Your task to perform on an android device: toggle improve location accuracy Image 0: 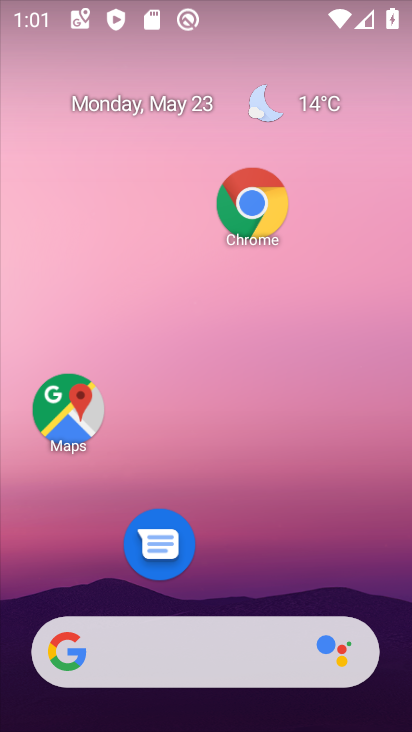
Step 0: drag from (270, 627) to (221, 217)
Your task to perform on an android device: toggle improve location accuracy Image 1: 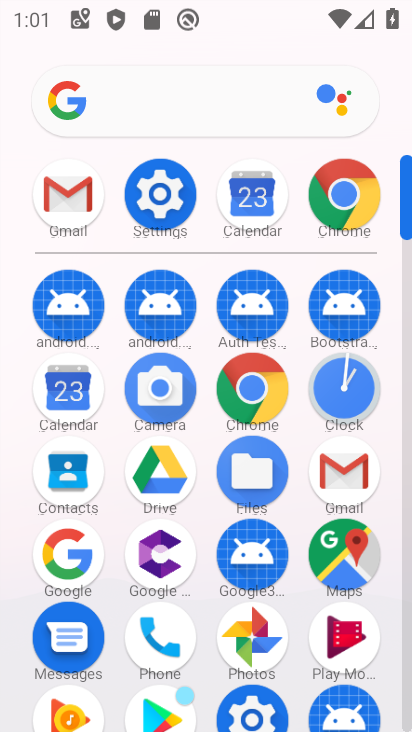
Step 1: click (164, 191)
Your task to perform on an android device: toggle improve location accuracy Image 2: 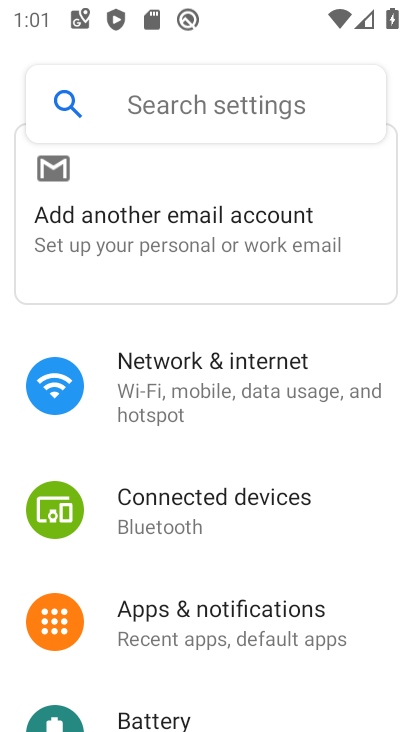
Step 2: drag from (192, 559) to (197, 259)
Your task to perform on an android device: toggle improve location accuracy Image 3: 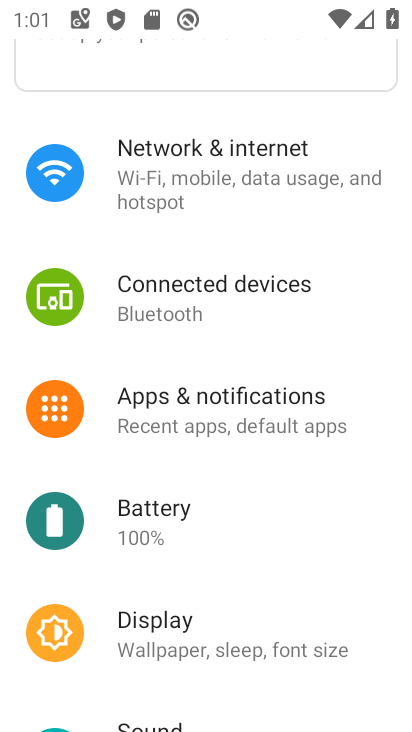
Step 3: drag from (212, 610) to (268, 241)
Your task to perform on an android device: toggle improve location accuracy Image 4: 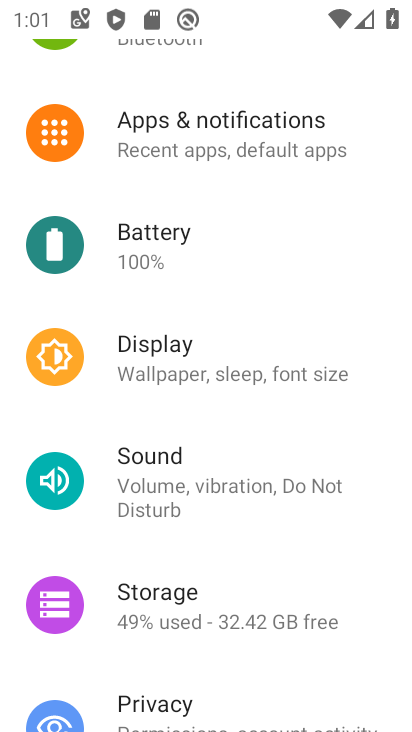
Step 4: drag from (256, 572) to (273, 207)
Your task to perform on an android device: toggle improve location accuracy Image 5: 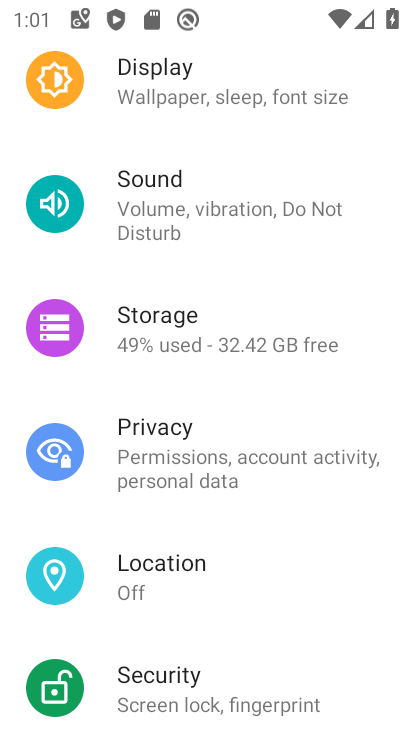
Step 5: click (183, 571)
Your task to perform on an android device: toggle improve location accuracy Image 6: 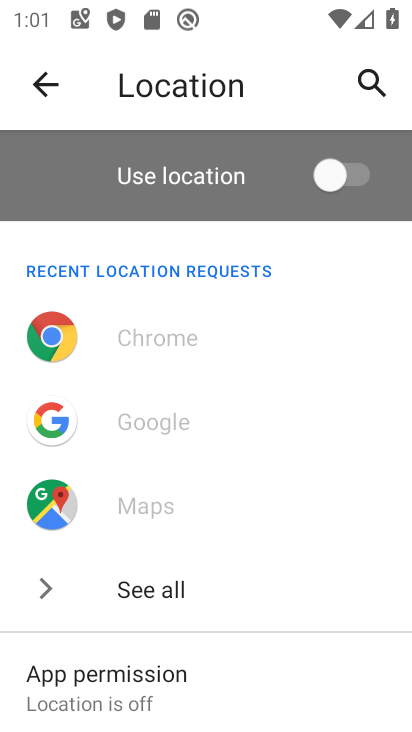
Step 6: drag from (294, 596) to (273, 3)
Your task to perform on an android device: toggle improve location accuracy Image 7: 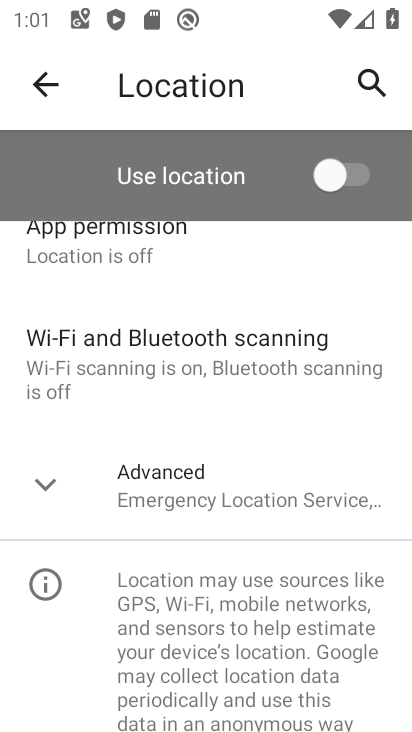
Step 7: click (189, 498)
Your task to perform on an android device: toggle improve location accuracy Image 8: 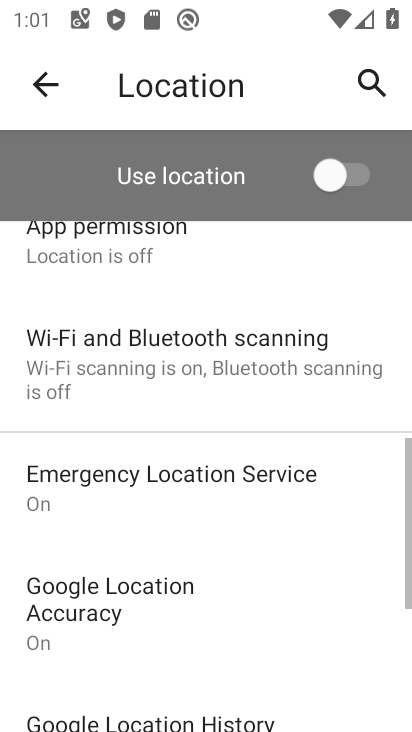
Step 8: drag from (253, 551) to (271, 48)
Your task to perform on an android device: toggle improve location accuracy Image 9: 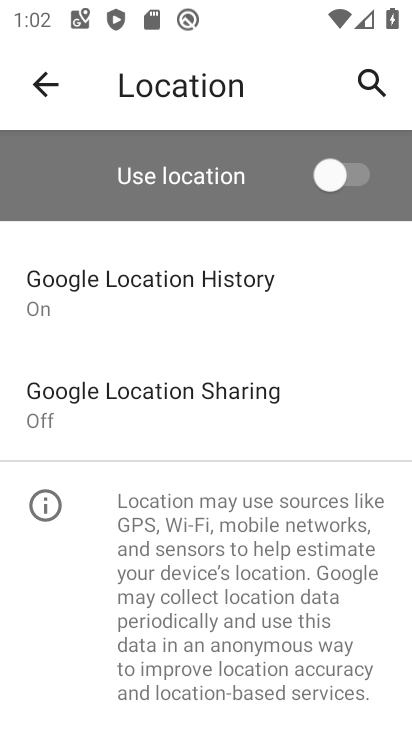
Step 9: drag from (254, 636) to (234, 110)
Your task to perform on an android device: toggle improve location accuracy Image 10: 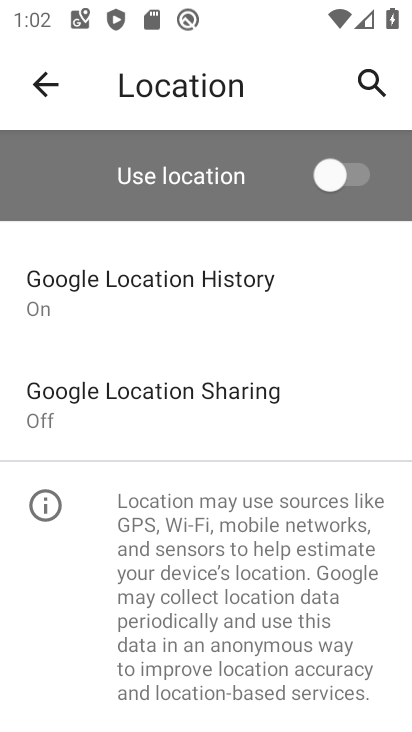
Step 10: drag from (203, 313) to (234, 623)
Your task to perform on an android device: toggle improve location accuracy Image 11: 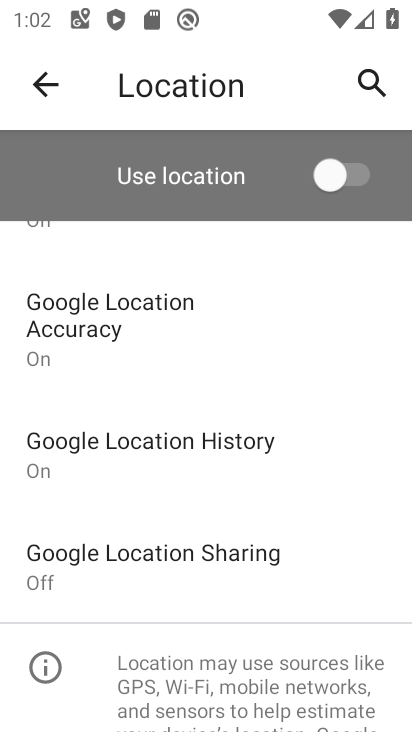
Step 11: click (117, 336)
Your task to perform on an android device: toggle improve location accuracy Image 12: 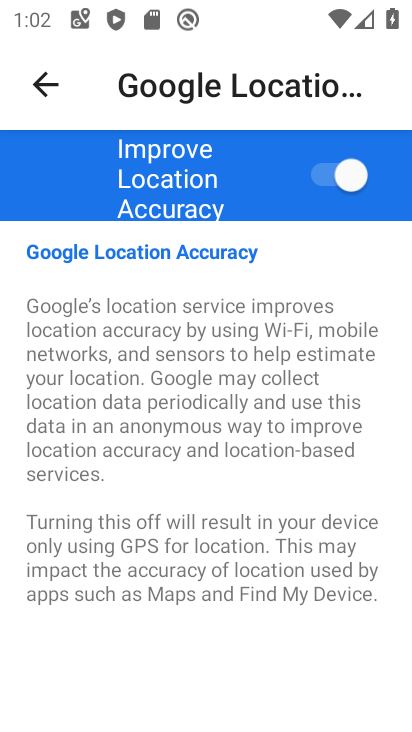
Step 12: click (345, 177)
Your task to perform on an android device: toggle improve location accuracy Image 13: 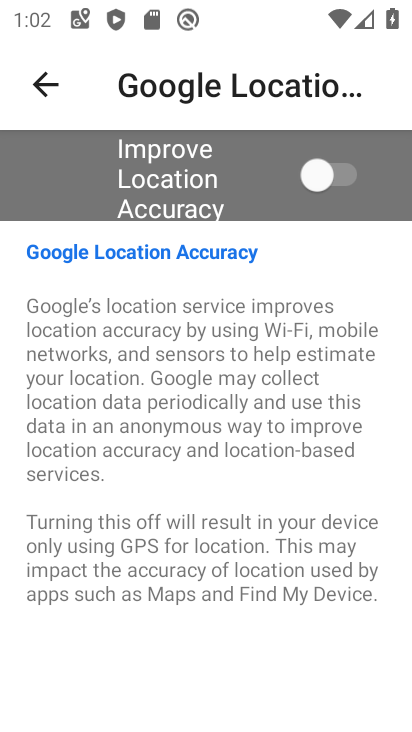
Step 13: task complete